Your task to perform on an android device: Open Google Image 0: 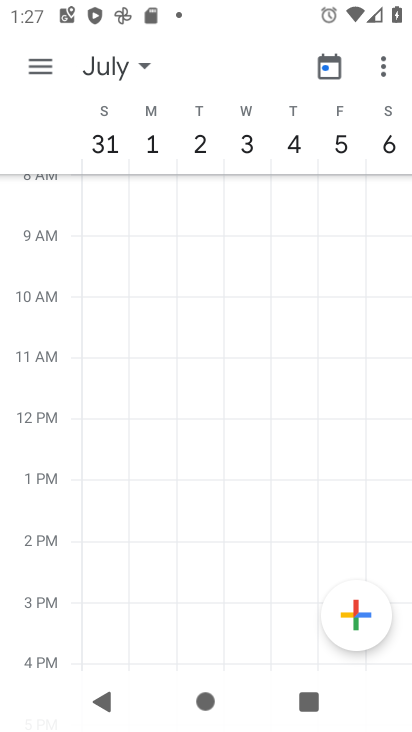
Step 0: press home button
Your task to perform on an android device: Open Google Image 1: 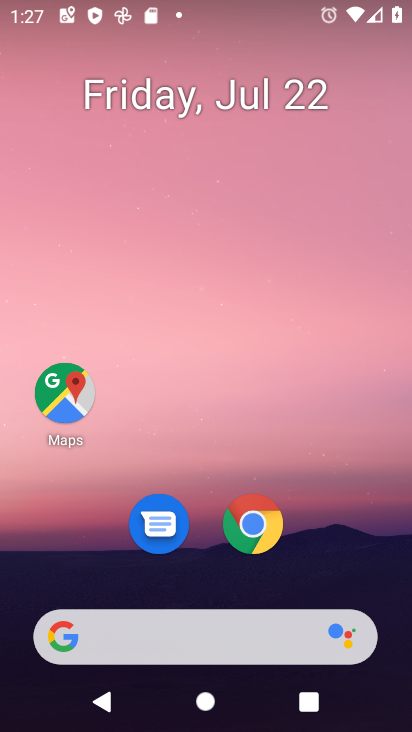
Step 1: drag from (221, 637) to (358, 111)
Your task to perform on an android device: Open Google Image 2: 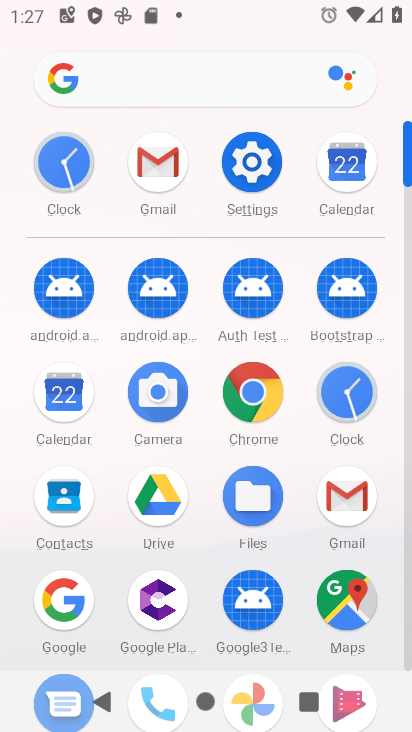
Step 2: click (70, 598)
Your task to perform on an android device: Open Google Image 3: 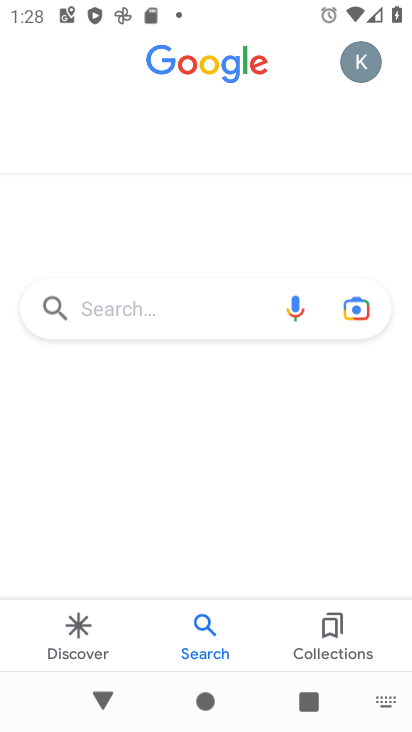
Step 3: task complete